Your task to perform on an android device: Show the shopping cart on costco.com. Image 0: 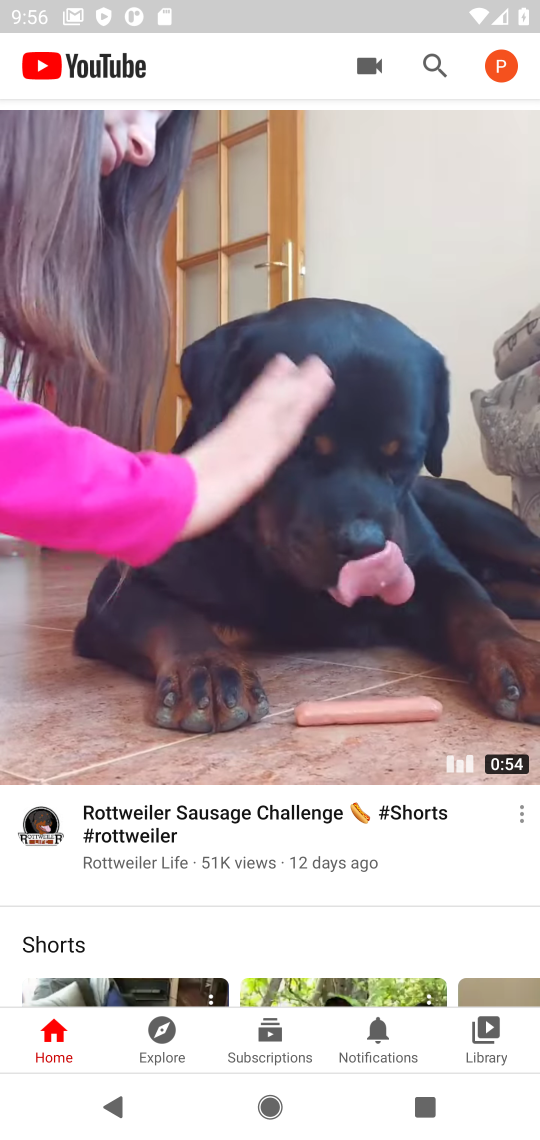
Step 0: press home button
Your task to perform on an android device: Show the shopping cart on costco.com. Image 1: 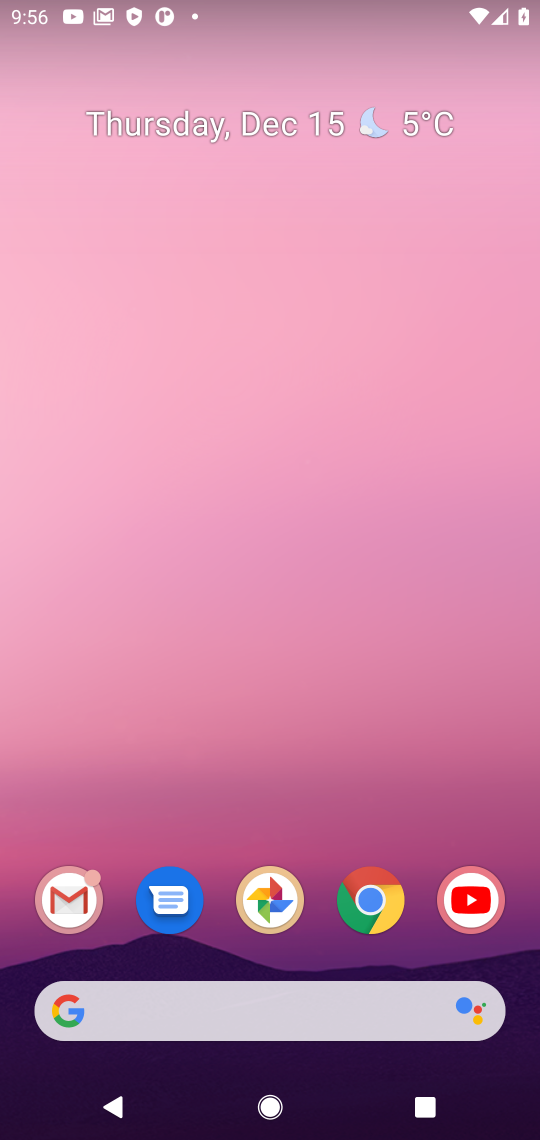
Step 1: click (364, 904)
Your task to perform on an android device: Show the shopping cart on costco.com. Image 2: 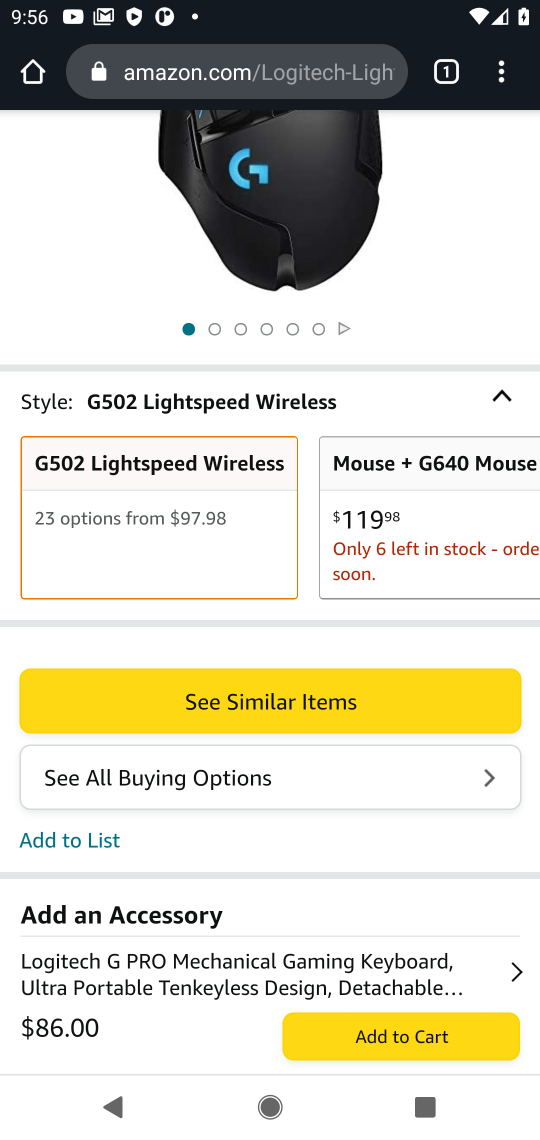
Step 2: click (221, 87)
Your task to perform on an android device: Show the shopping cart on costco.com. Image 3: 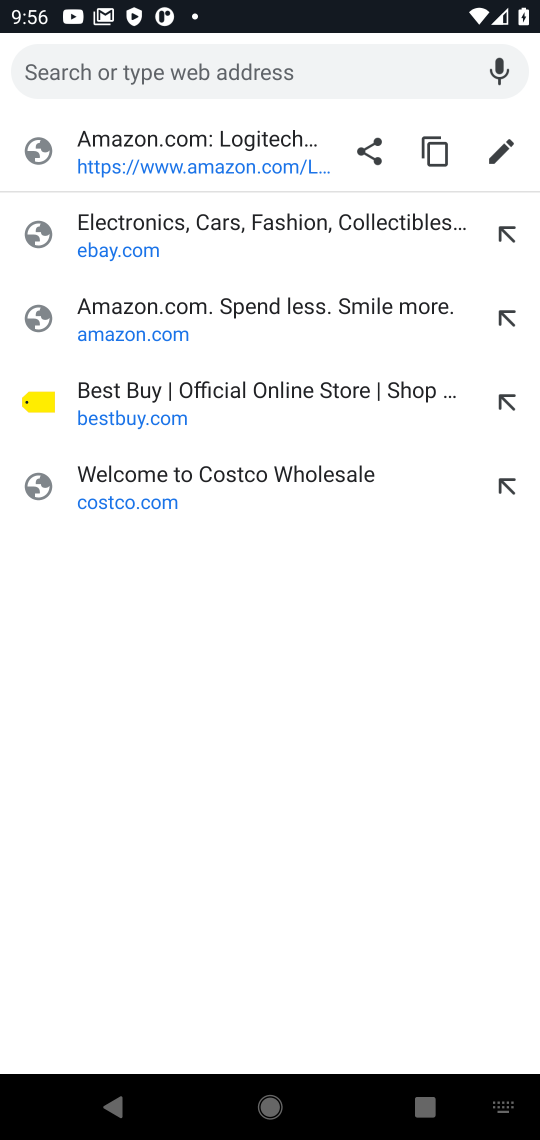
Step 3: type "costco.com"
Your task to perform on an android device: Show the shopping cart on costco.com. Image 4: 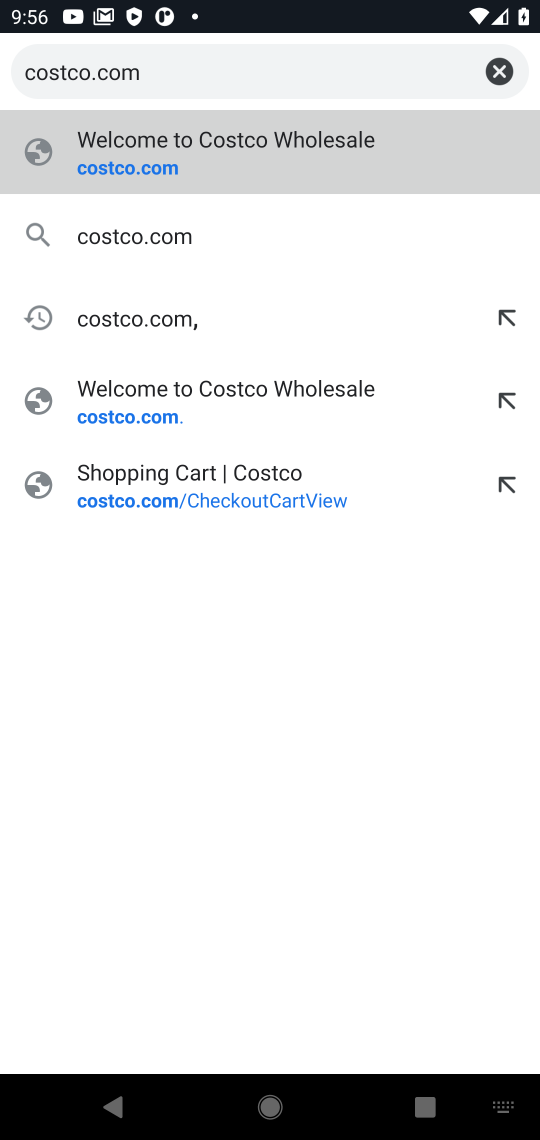
Step 4: click (335, 169)
Your task to perform on an android device: Show the shopping cart on costco.com. Image 5: 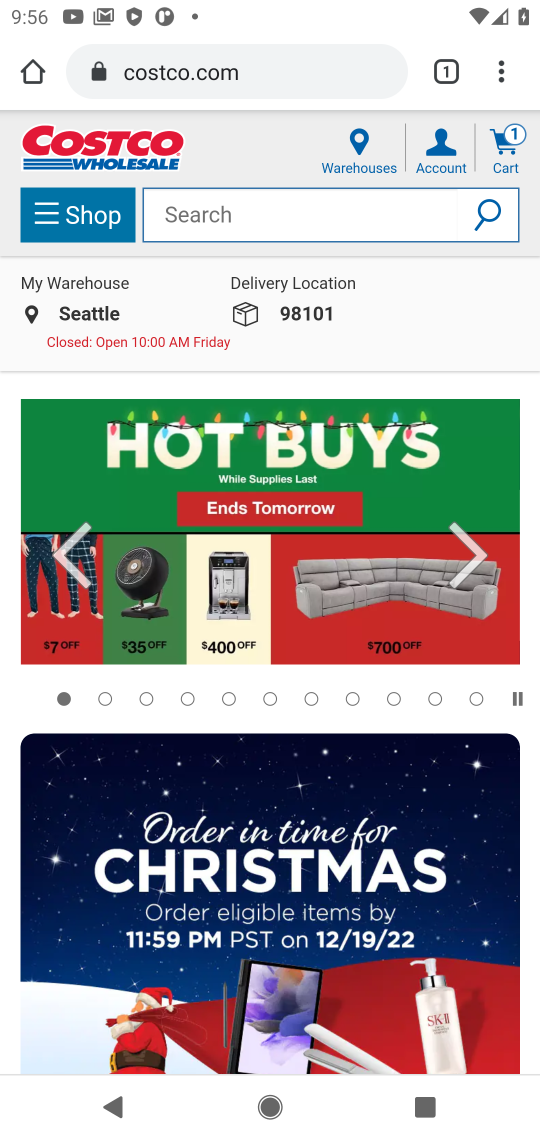
Step 5: click (512, 155)
Your task to perform on an android device: Show the shopping cart on costco.com. Image 6: 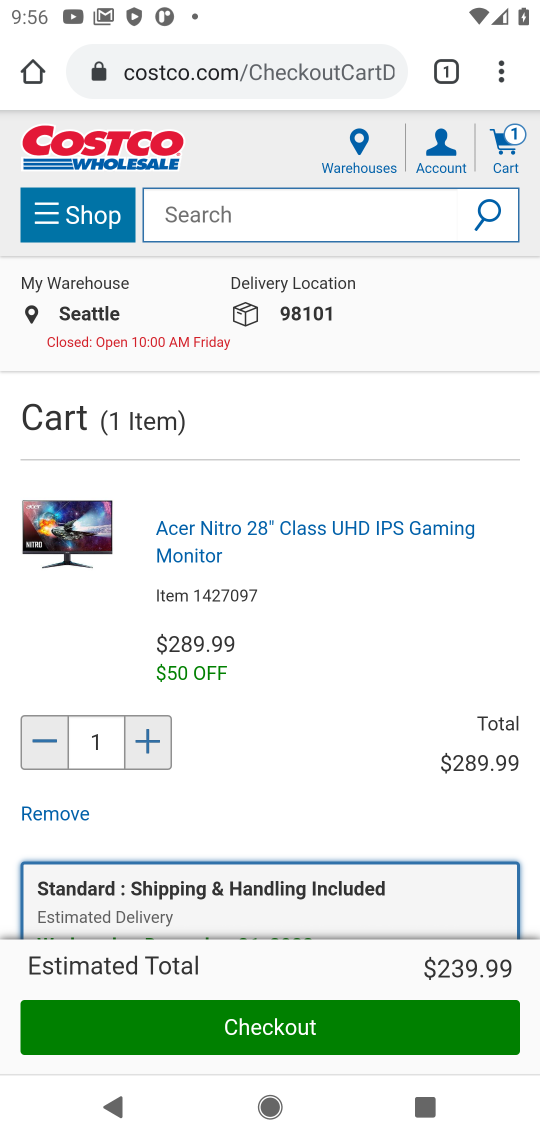
Step 6: task complete